Your task to perform on an android device: turn on the 24-hour format for clock Image 0: 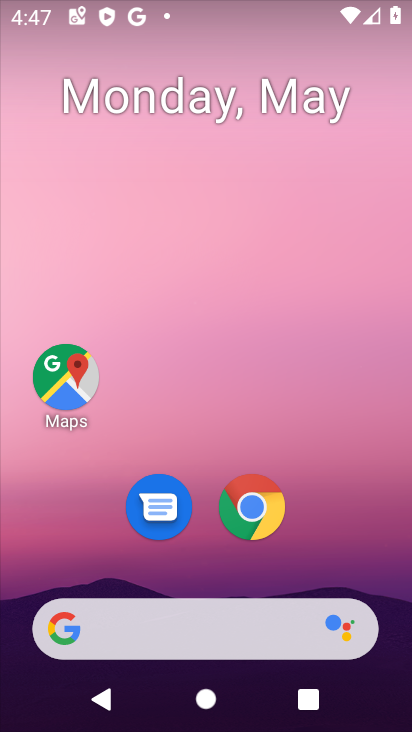
Step 0: drag from (378, 547) to (409, 95)
Your task to perform on an android device: turn on the 24-hour format for clock Image 1: 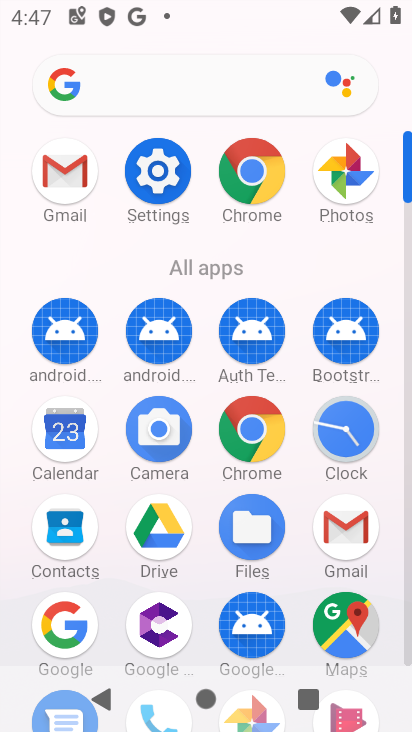
Step 1: click (366, 420)
Your task to perform on an android device: turn on the 24-hour format for clock Image 2: 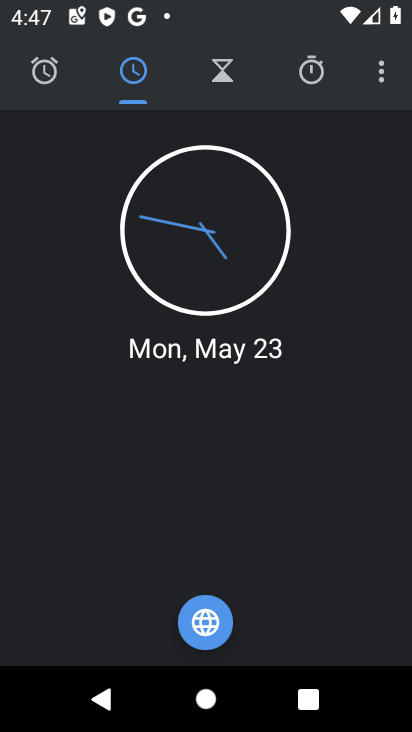
Step 2: click (372, 68)
Your task to perform on an android device: turn on the 24-hour format for clock Image 3: 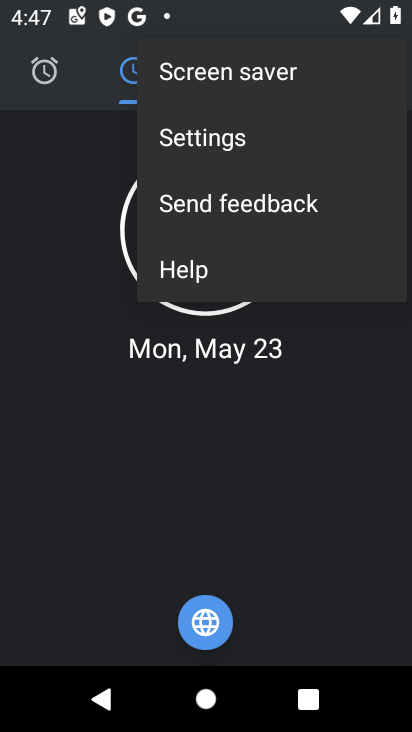
Step 3: click (216, 150)
Your task to perform on an android device: turn on the 24-hour format for clock Image 4: 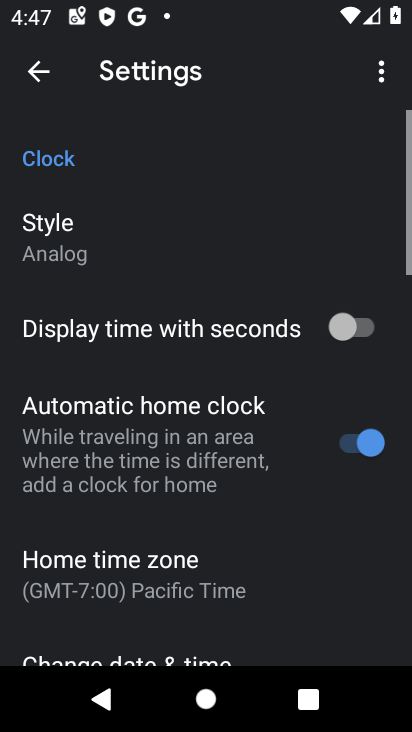
Step 4: drag from (174, 531) to (211, 37)
Your task to perform on an android device: turn on the 24-hour format for clock Image 5: 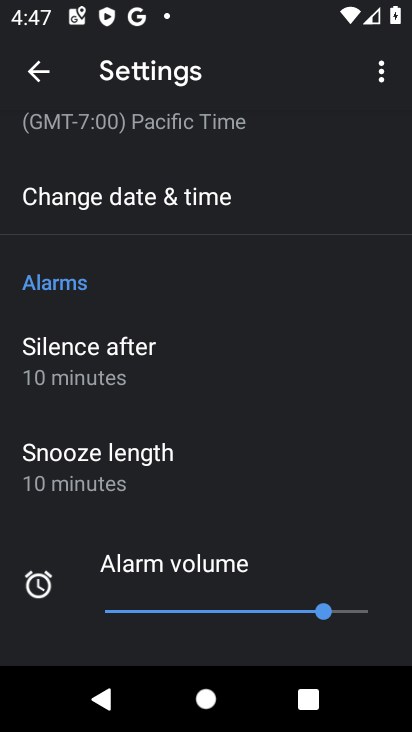
Step 5: click (147, 204)
Your task to perform on an android device: turn on the 24-hour format for clock Image 6: 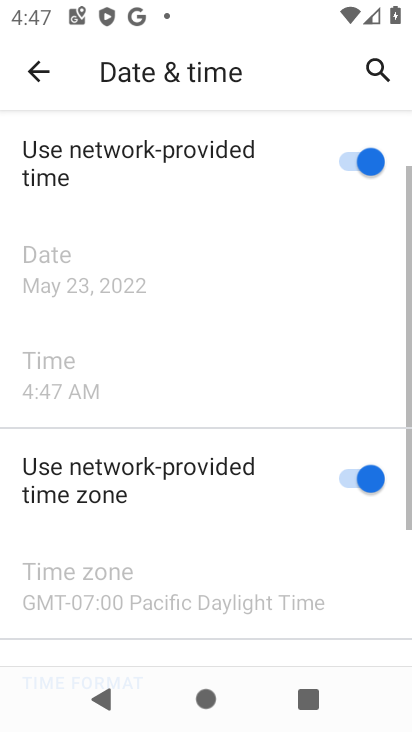
Step 6: task complete